Your task to perform on an android device: Open network settings Image 0: 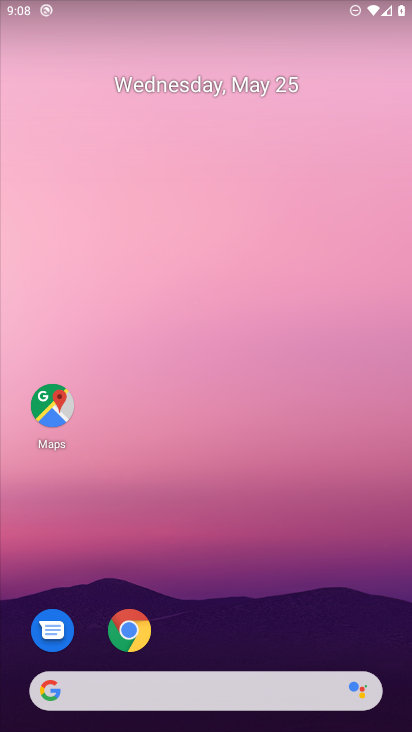
Step 0: drag from (277, 678) to (304, 315)
Your task to perform on an android device: Open network settings Image 1: 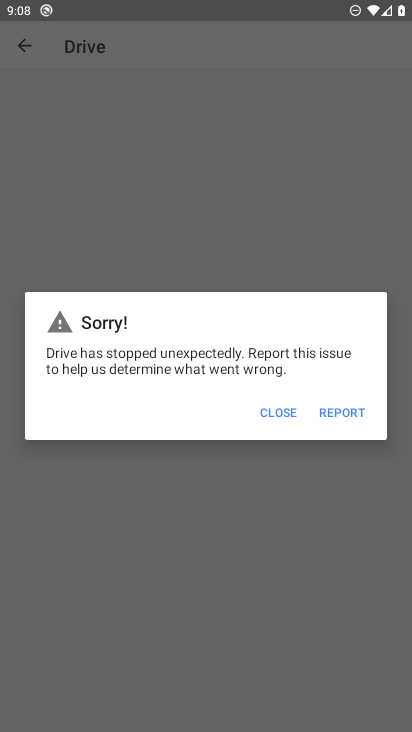
Step 1: press home button
Your task to perform on an android device: Open network settings Image 2: 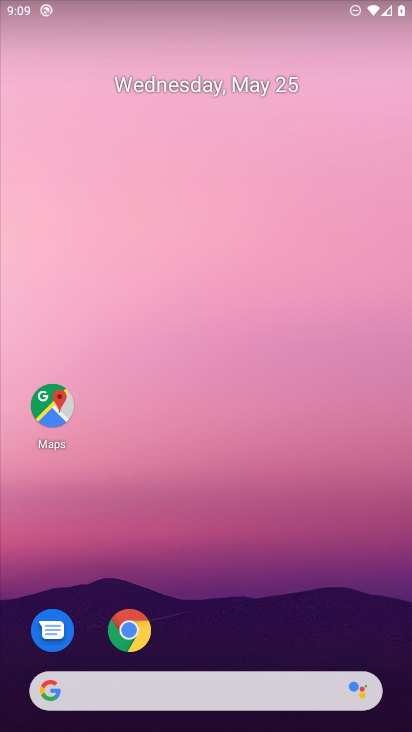
Step 2: drag from (253, 676) to (261, 193)
Your task to perform on an android device: Open network settings Image 3: 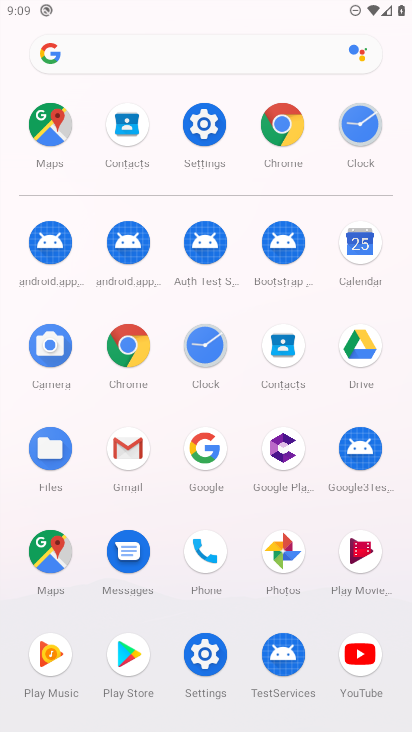
Step 3: click (202, 142)
Your task to perform on an android device: Open network settings Image 4: 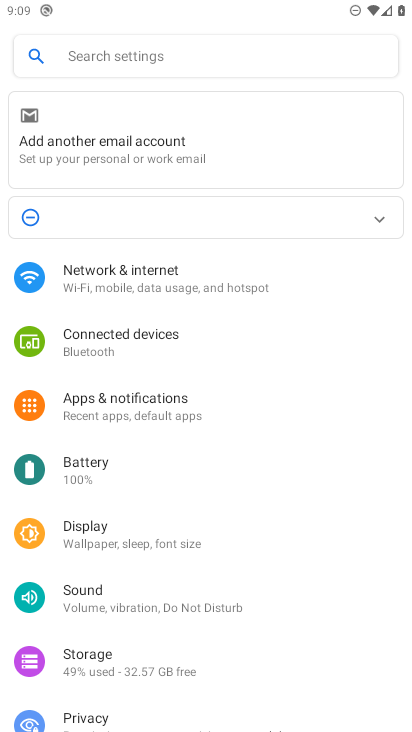
Step 4: click (140, 278)
Your task to perform on an android device: Open network settings Image 5: 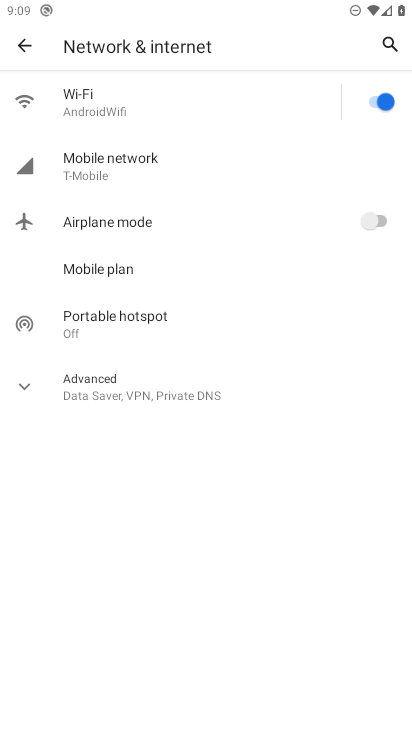
Step 5: click (114, 383)
Your task to perform on an android device: Open network settings Image 6: 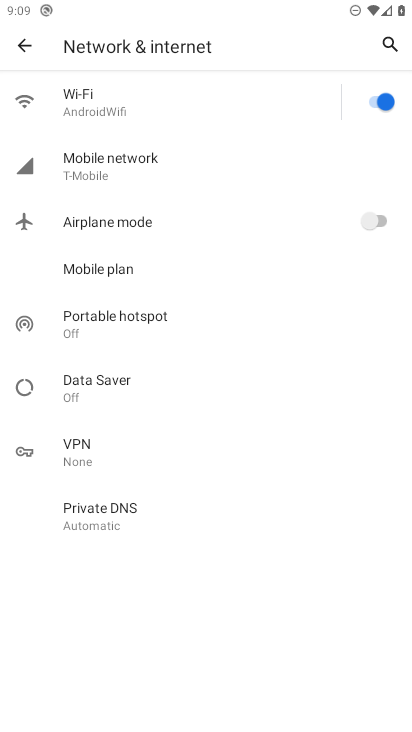
Step 6: task complete